Your task to perform on an android device: Open accessibility settings Image 0: 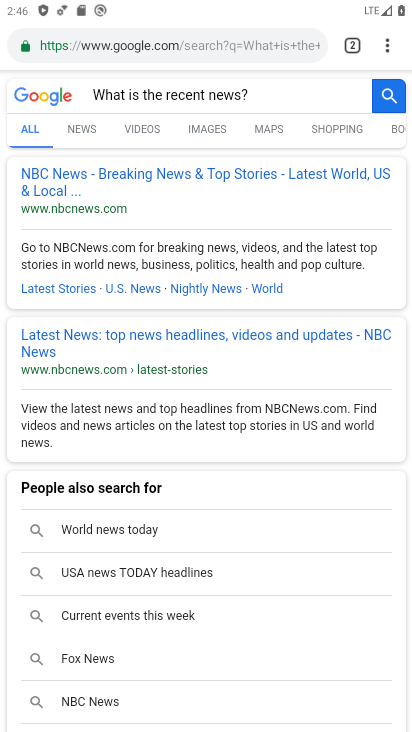
Step 0: press home button
Your task to perform on an android device: Open accessibility settings Image 1: 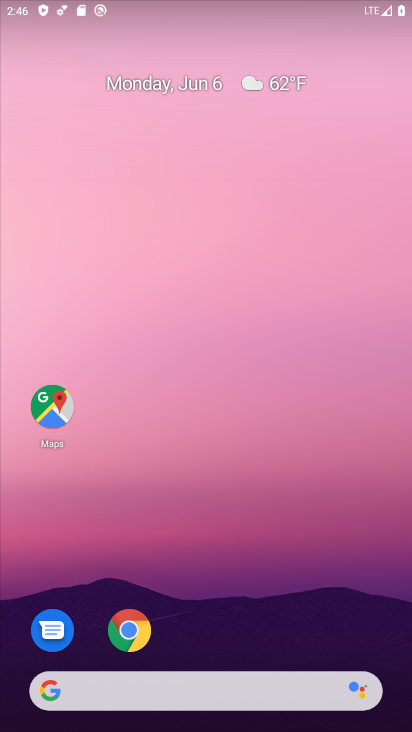
Step 1: drag from (317, 608) to (221, 78)
Your task to perform on an android device: Open accessibility settings Image 2: 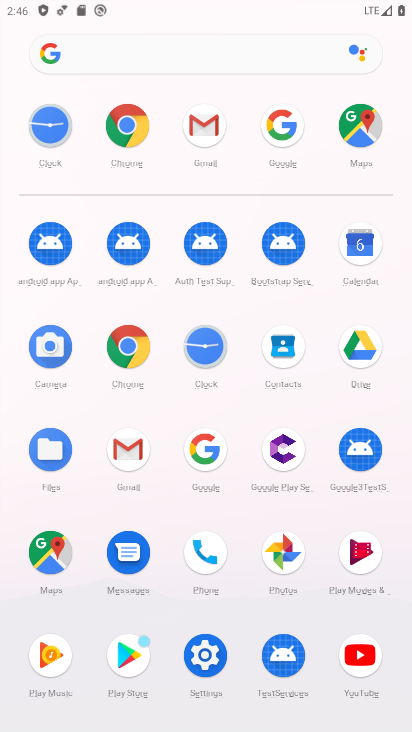
Step 2: click (223, 677)
Your task to perform on an android device: Open accessibility settings Image 3: 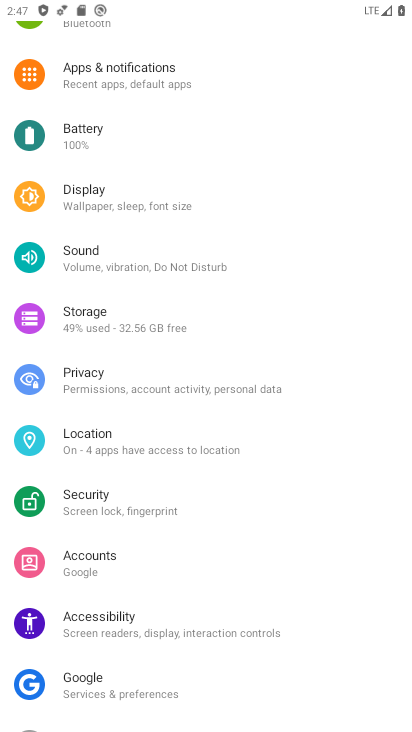
Step 3: click (73, 616)
Your task to perform on an android device: Open accessibility settings Image 4: 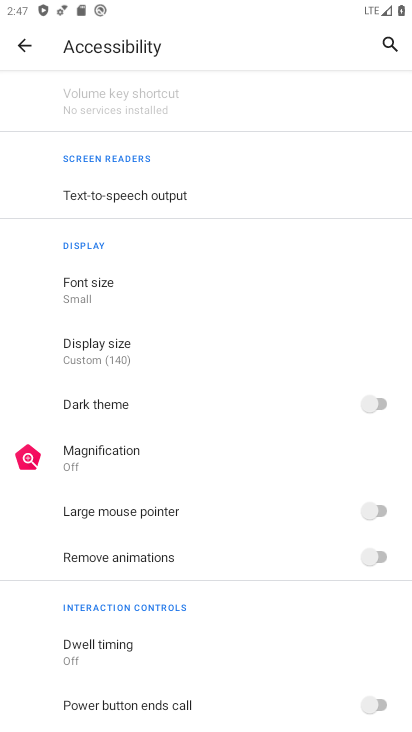
Step 4: task complete